Your task to perform on an android device: open sync settings in chrome Image 0: 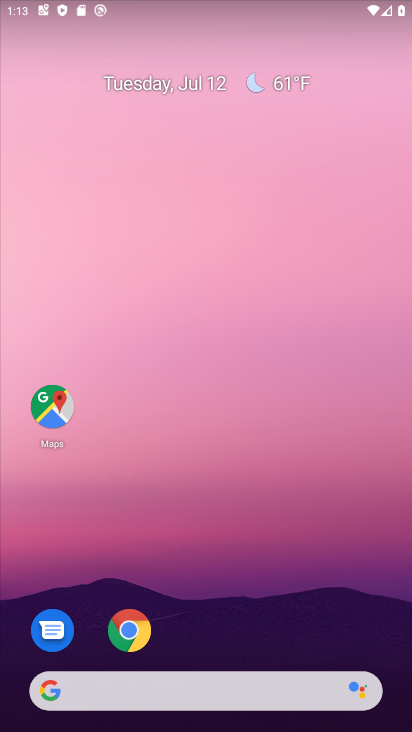
Step 0: drag from (211, 560) to (261, 221)
Your task to perform on an android device: open sync settings in chrome Image 1: 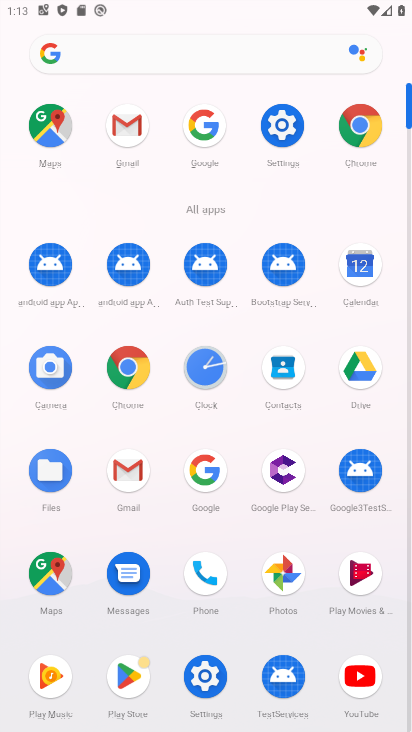
Step 1: click (370, 123)
Your task to perform on an android device: open sync settings in chrome Image 2: 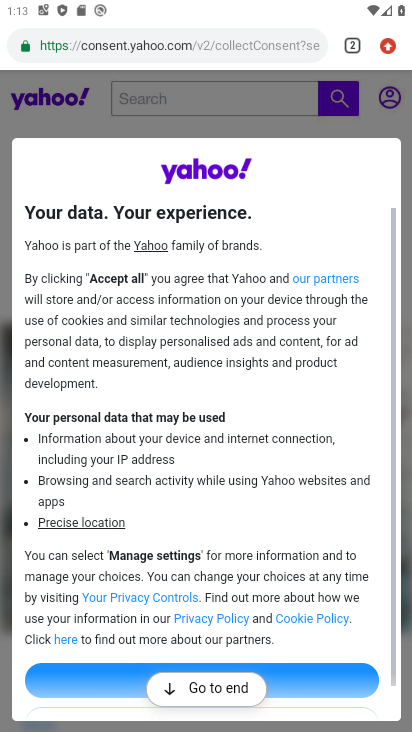
Step 2: click (298, 676)
Your task to perform on an android device: open sync settings in chrome Image 3: 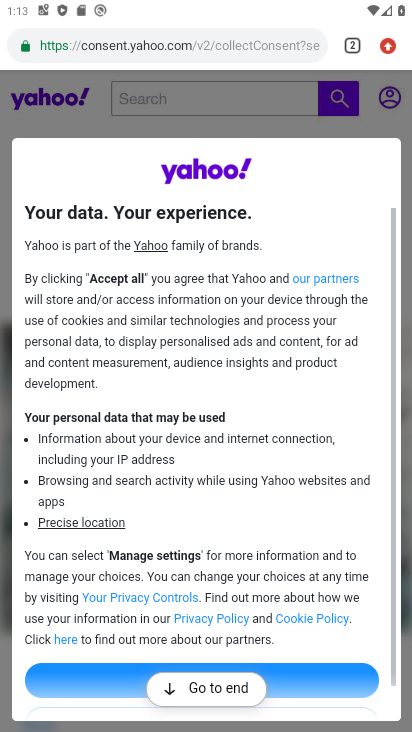
Step 3: click (386, 49)
Your task to perform on an android device: open sync settings in chrome Image 4: 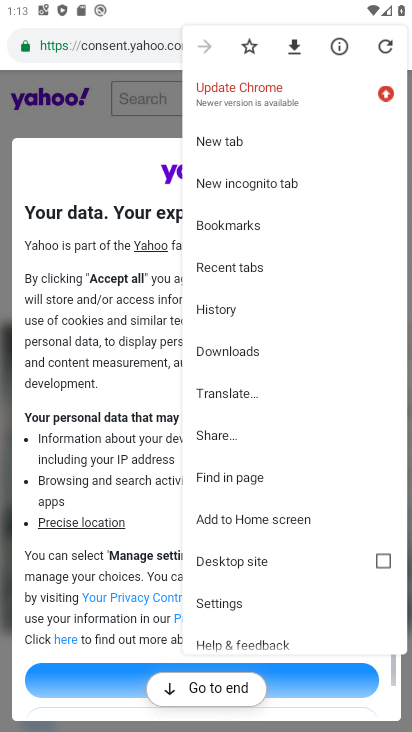
Step 4: click (232, 603)
Your task to perform on an android device: open sync settings in chrome Image 5: 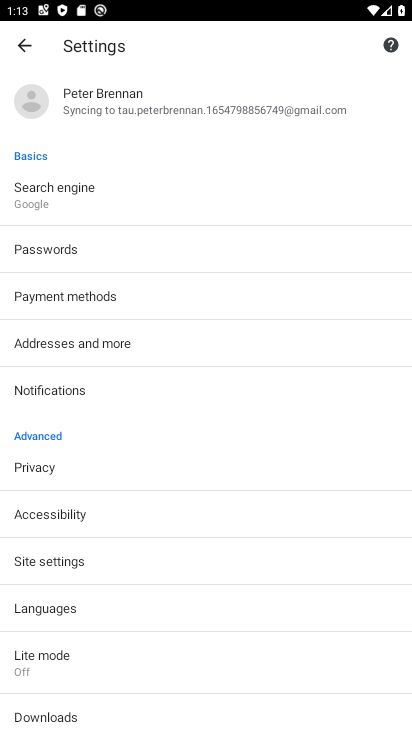
Step 5: click (129, 115)
Your task to perform on an android device: open sync settings in chrome Image 6: 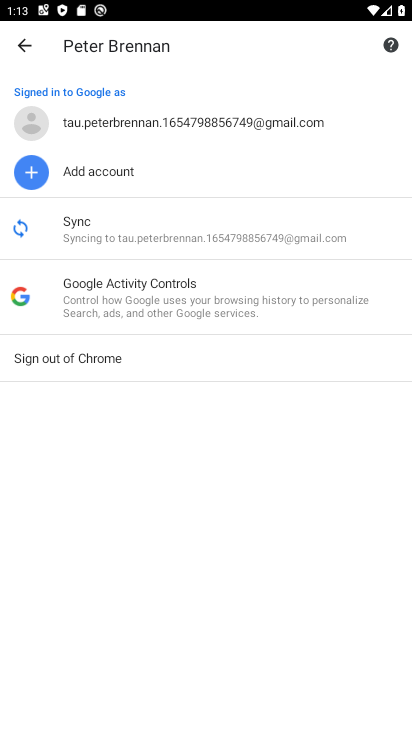
Step 6: click (144, 245)
Your task to perform on an android device: open sync settings in chrome Image 7: 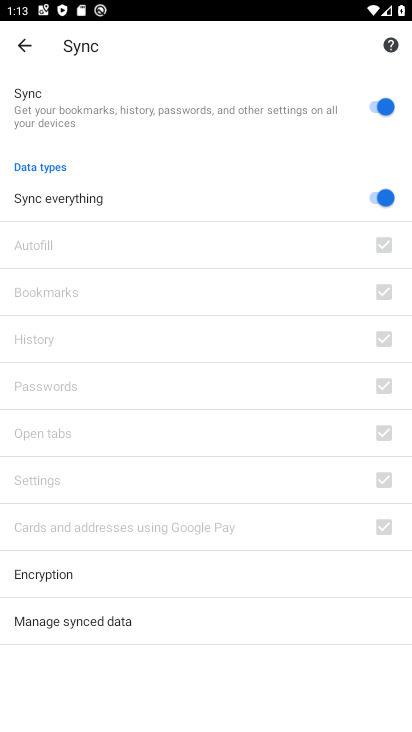
Step 7: task complete